Your task to perform on an android device: Go to notification settings Image 0: 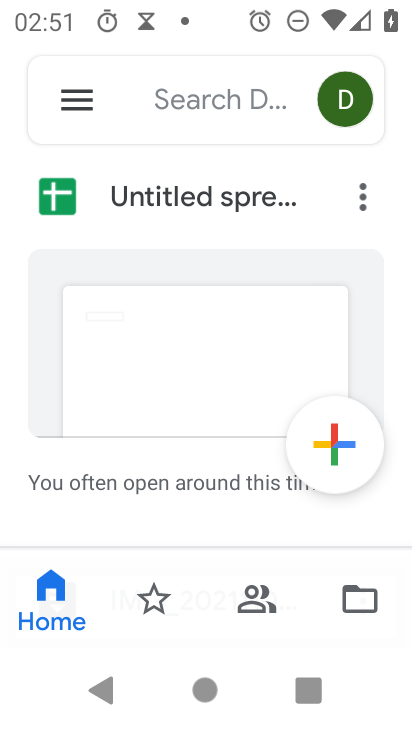
Step 0: press home button
Your task to perform on an android device: Go to notification settings Image 1: 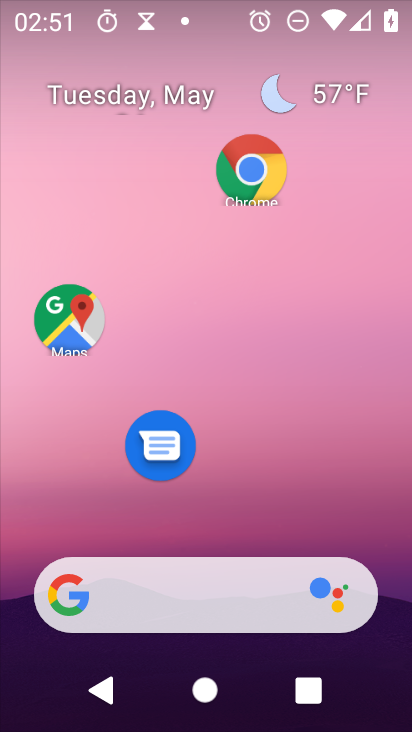
Step 1: drag from (222, 723) to (222, 53)
Your task to perform on an android device: Go to notification settings Image 2: 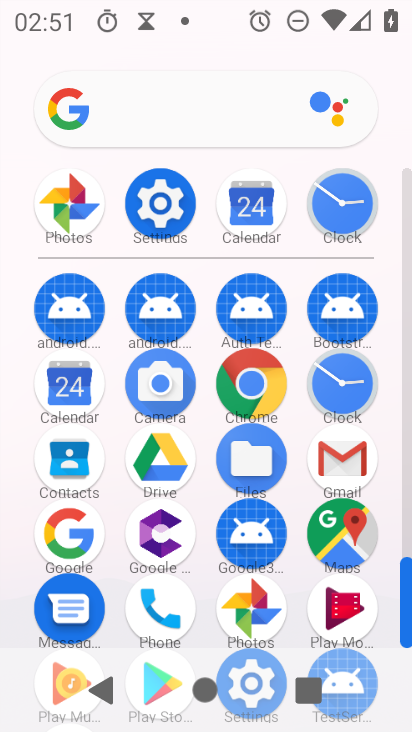
Step 2: click (161, 201)
Your task to perform on an android device: Go to notification settings Image 3: 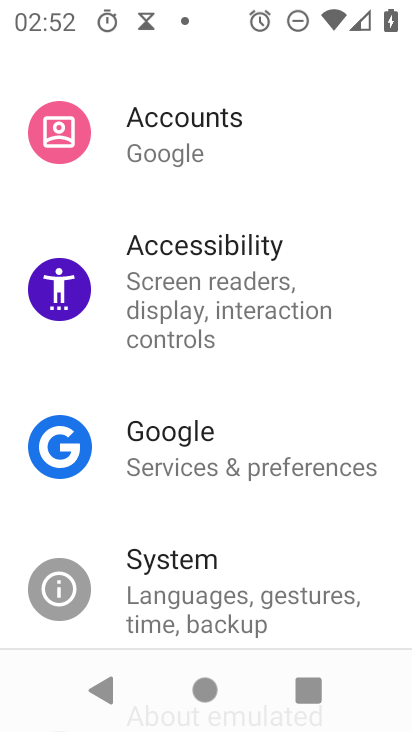
Step 3: drag from (174, 191) to (235, 617)
Your task to perform on an android device: Go to notification settings Image 4: 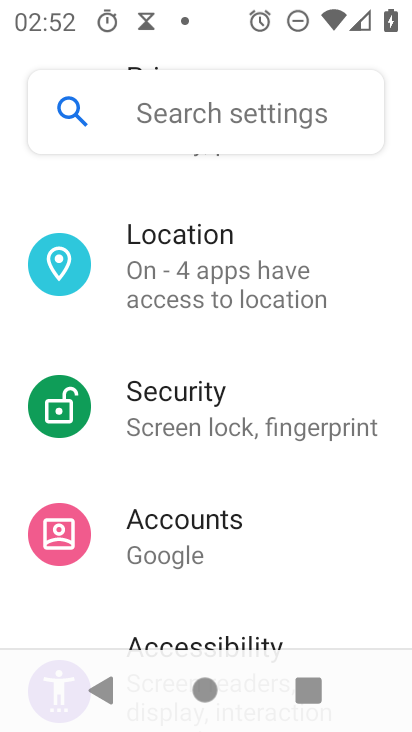
Step 4: drag from (240, 205) to (238, 602)
Your task to perform on an android device: Go to notification settings Image 5: 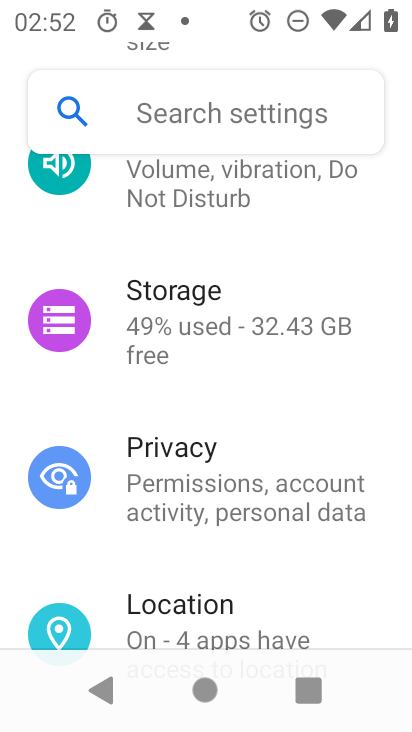
Step 5: drag from (242, 260) to (242, 628)
Your task to perform on an android device: Go to notification settings Image 6: 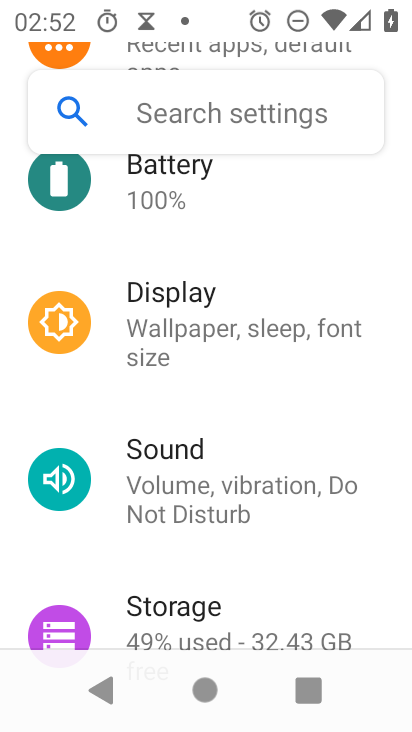
Step 6: drag from (265, 221) to (258, 531)
Your task to perform on an android device: Go to notification settings Image 7: 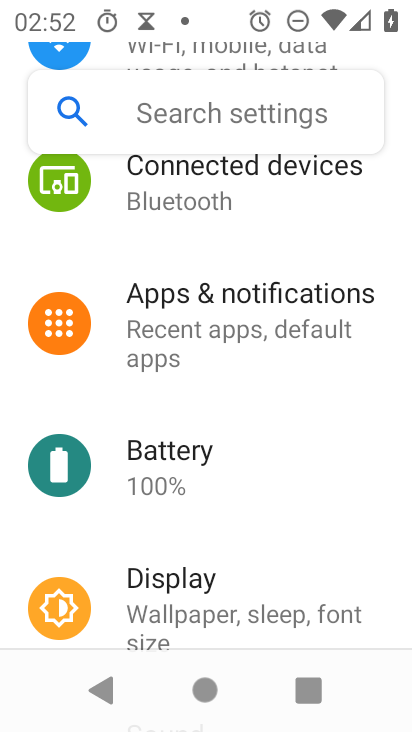
Step 7: click (240, 308)
Your task to perform on an android device: Go to notification settings Image 8: 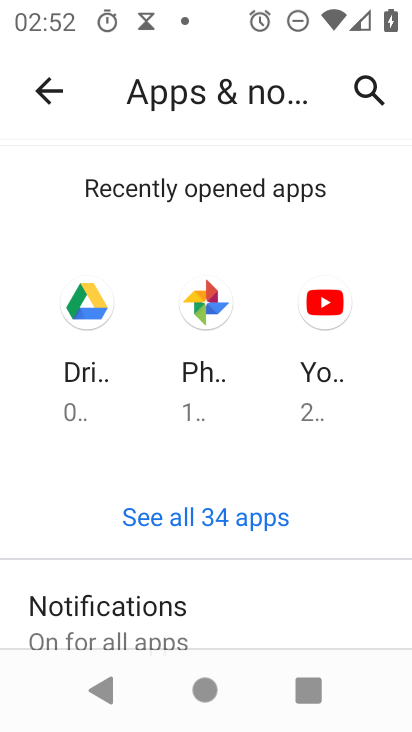
Step 8: click (83, 613)
Your task to perform on an android device: Go to notification settings Image 9: 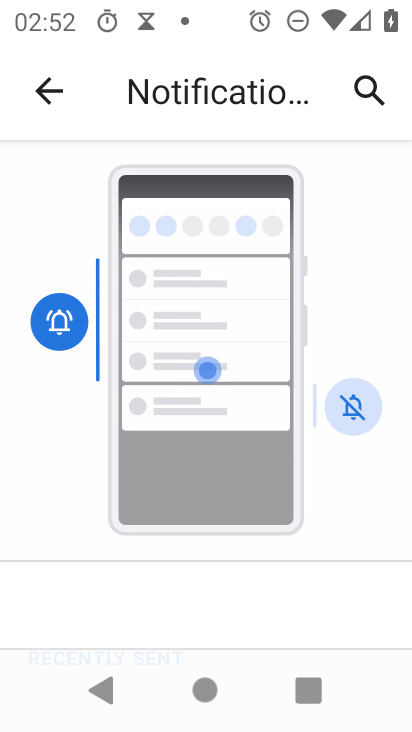
Step 9: task complete